Your task to perform on an android device: turn on wifi Image 0: 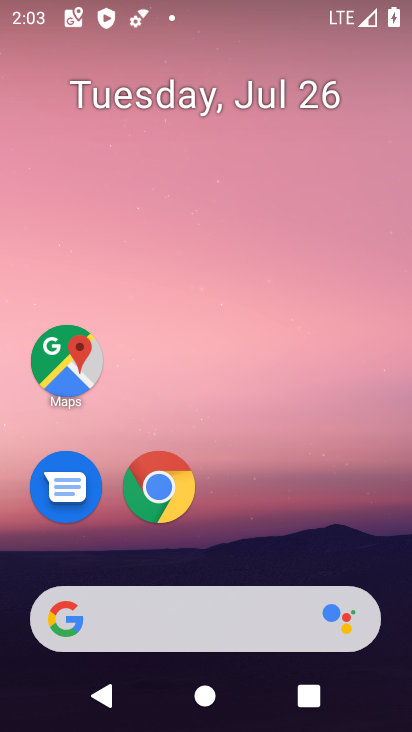
Step 0: drag from (185, 603) to (199, 155)
Your task to perform on an android device: turn on wifi Image 1: 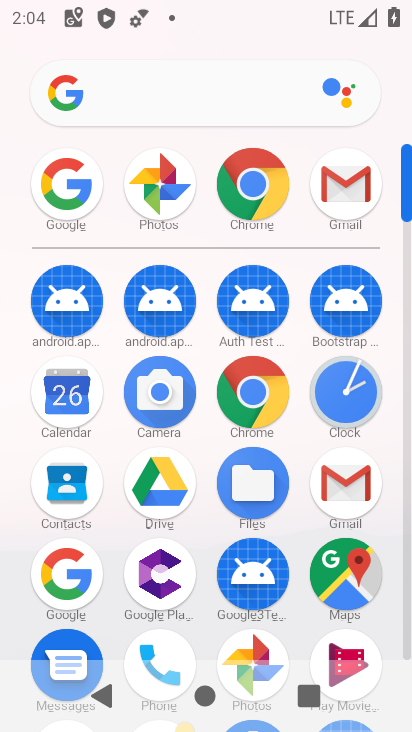
Step 1: drag from (151, 482) to (200, 159)
Your task to perform on an android device: turn on wifi Image 2: 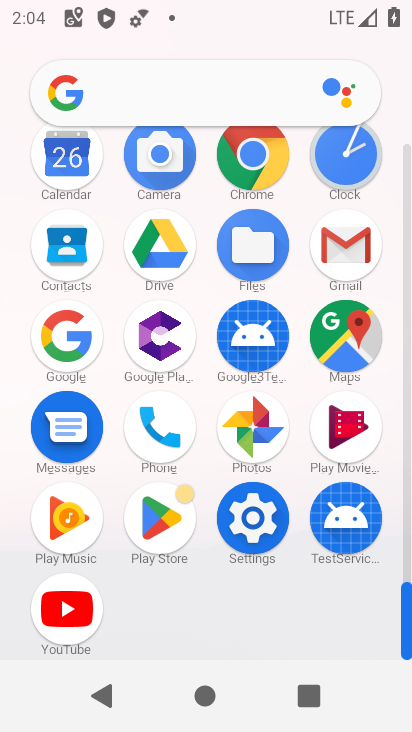
Step 2: click (262, 524)
Your task to perform on an android device: turn on wifi Image 3: 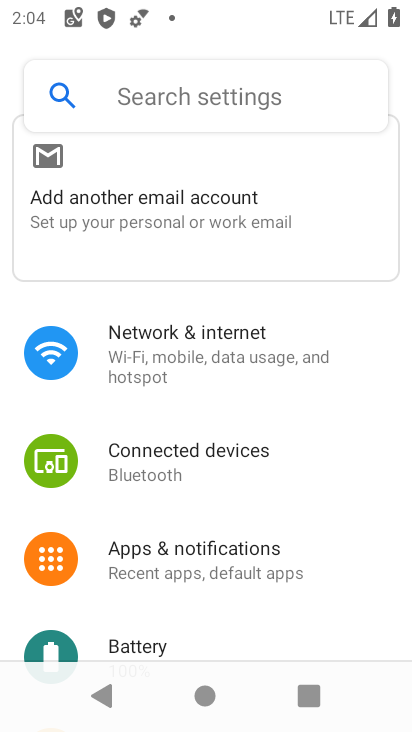
Step 3: click (242, 359)
Your task to perform on an android device: turn on wifi Image 4: 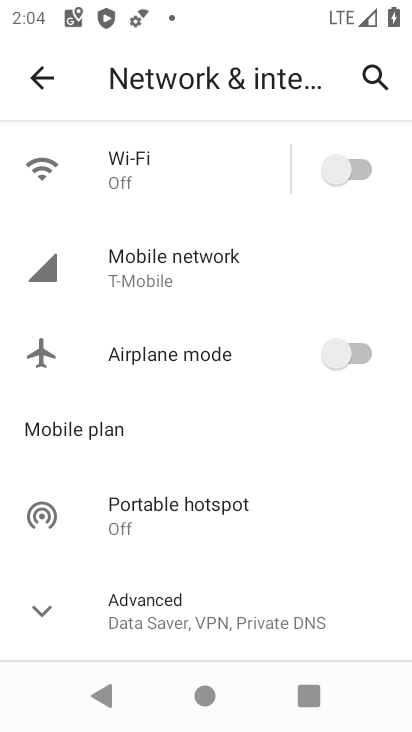
Step 4: click (359, 173)
Your task to perform on an android device: turn on wifi Image 5: 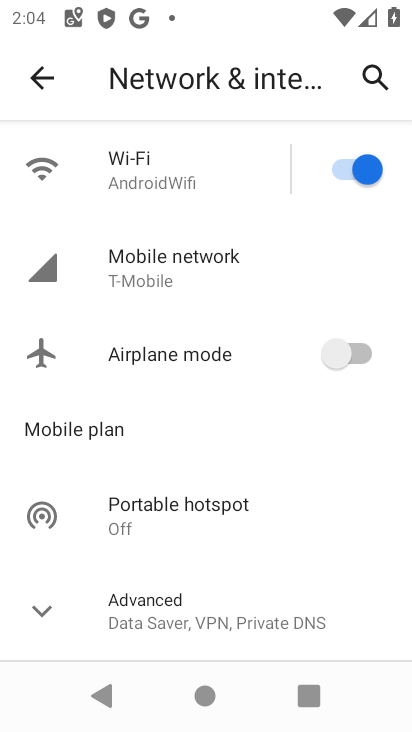
Step 5: task complete